Your task to perform on an android device: manage bookmarks in the chrome app Image 0: 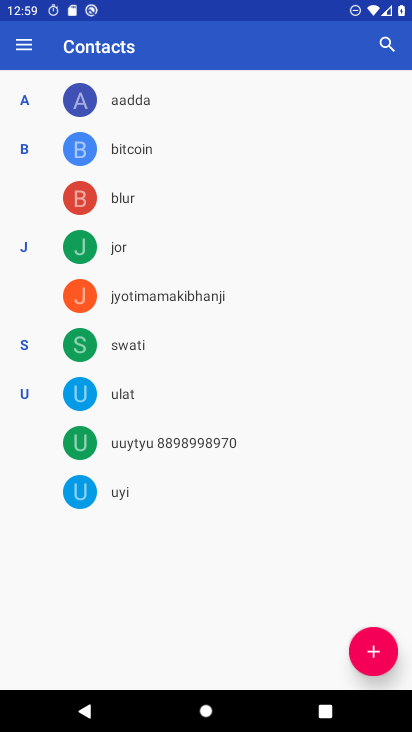
Step 0: press home button
Your task to perform on an android device: manage bookmarks in the chrome app Image 1: 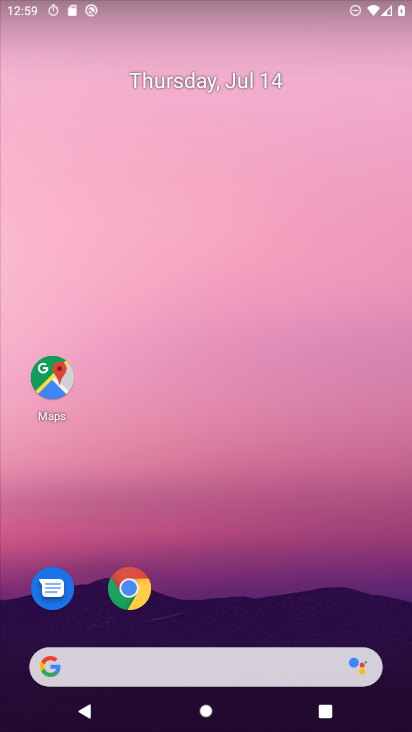
Step 1: click (135, 589)
Your task to perform on an android device: manage bookmarks in the chrome app Image 2: 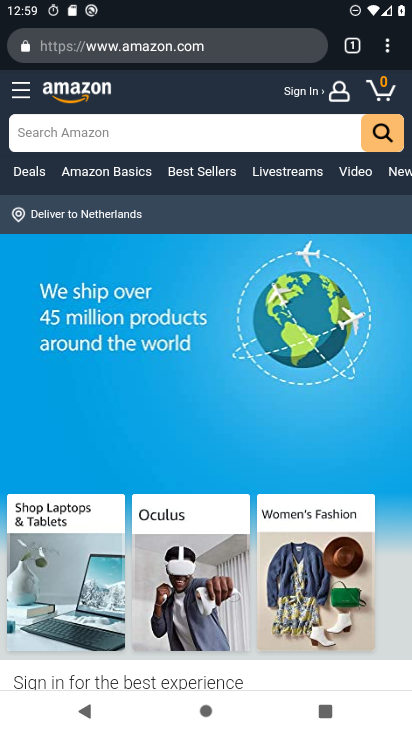
Step 2: drag from (387, 48) to (275, 225)
Your task to perform on an android device: manage bookmarks in the chrome app Image 3: 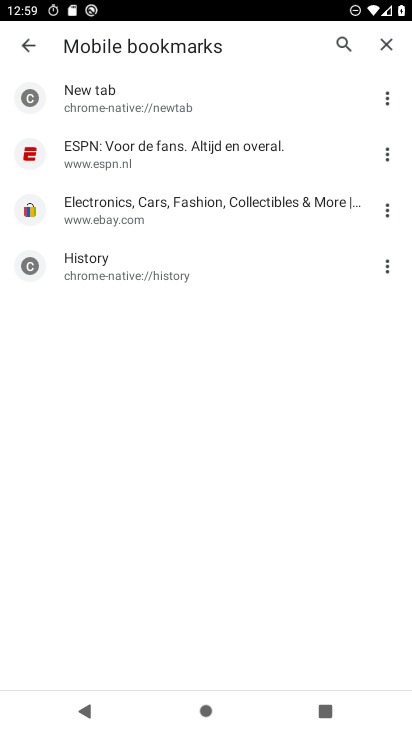
Step 3: click (388, 146)
Your task to perform on an android device: manage bookmarks in the chrome app Image 4: 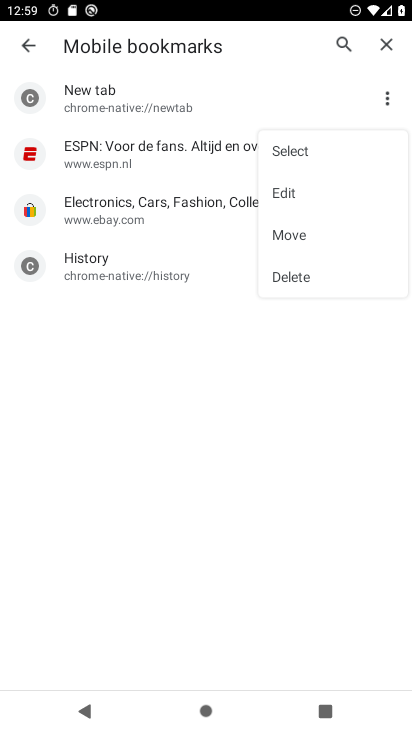
Step 4: click (304, 237)
Your task to perform on an android device: manage bookmarks in the chrome app Image 5: 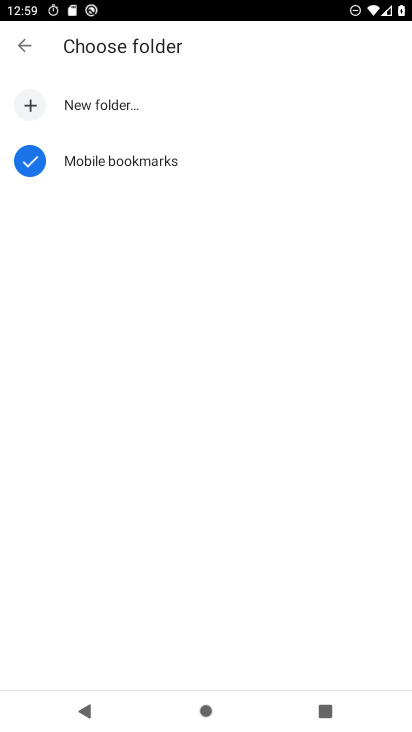
Step 5: click (76, 165)
Your task to perform on an android device: manage bookmarks in the chrome app Image 6: 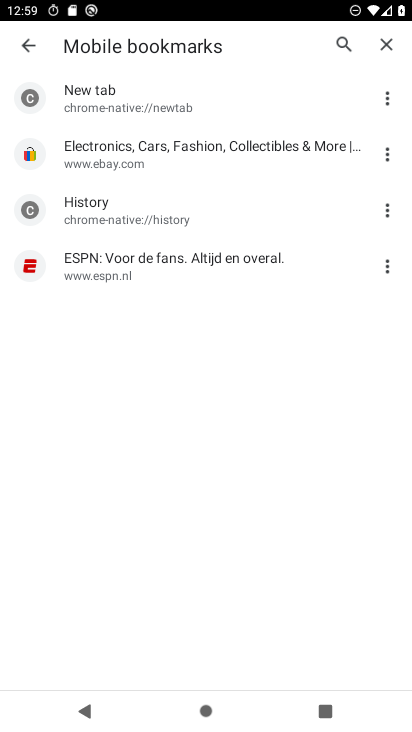
Step 6: task complete